Your task to perform on an android device: create a new album in the google photos Image 0: 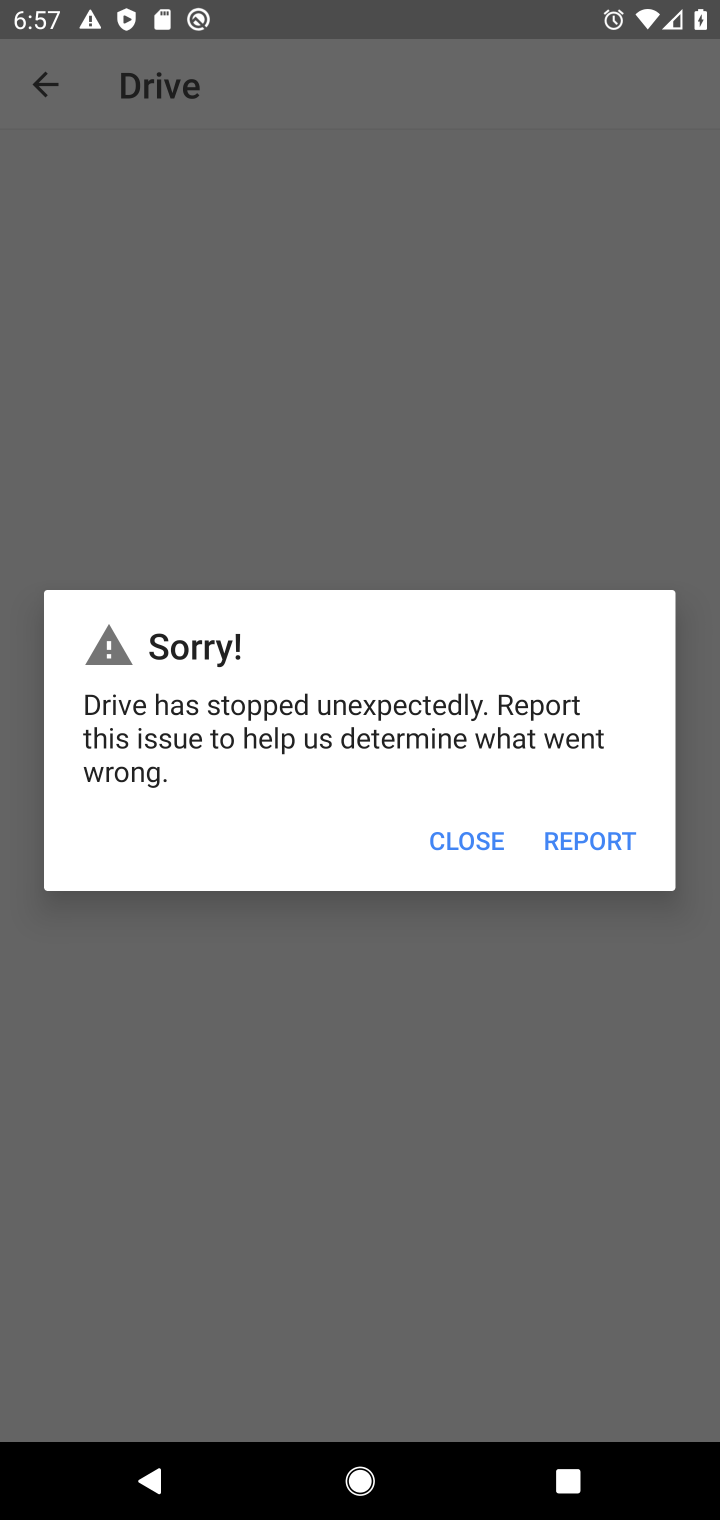
Step 0: press home button
Your task to perform on an android device: create a new album in the google photos Image 1: 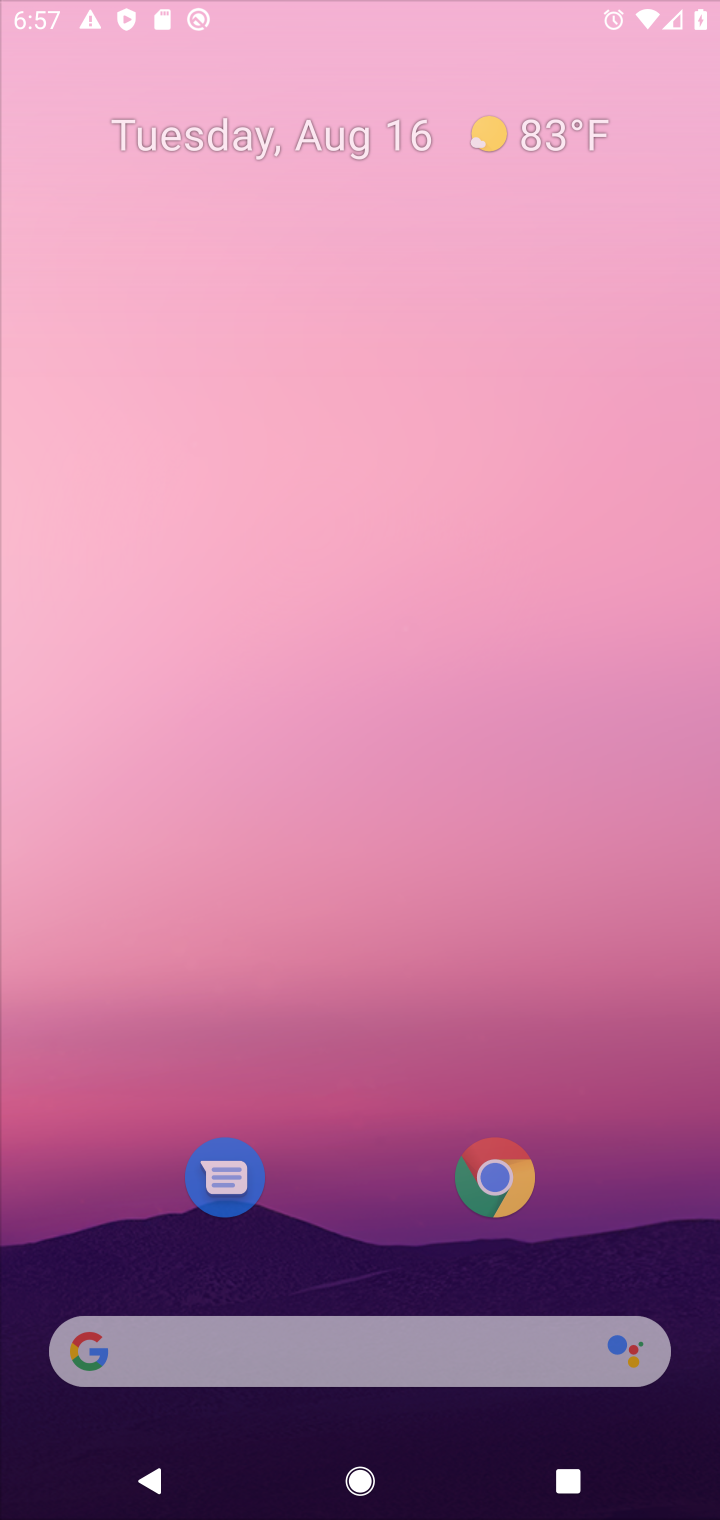
Step 1: drag from (686, 1273) to (259, 57)
Your task to perform on an android device: create a new album in the google photos Image 2: 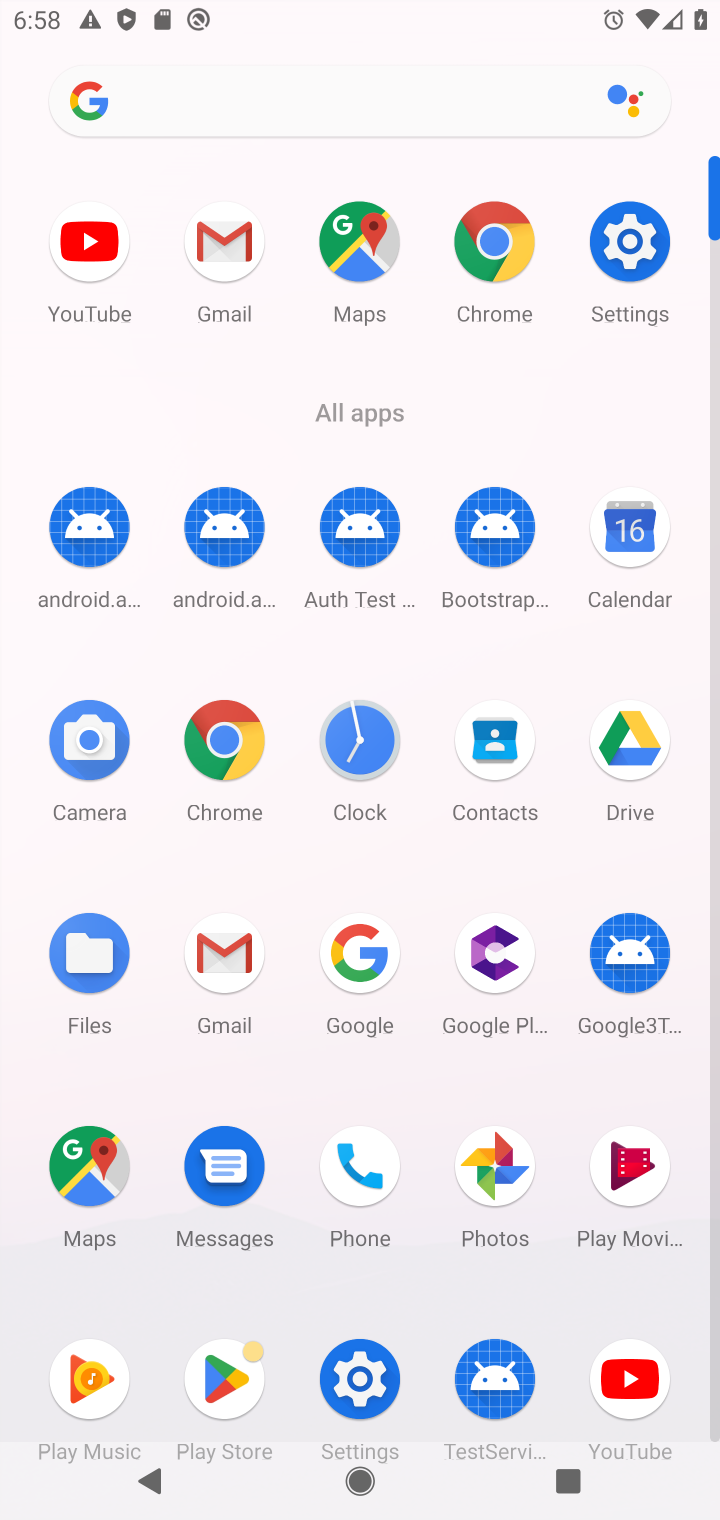
Step 2: click (480, 1203)
Your task to perform on an android device: create a new album in the google photos Image 3: 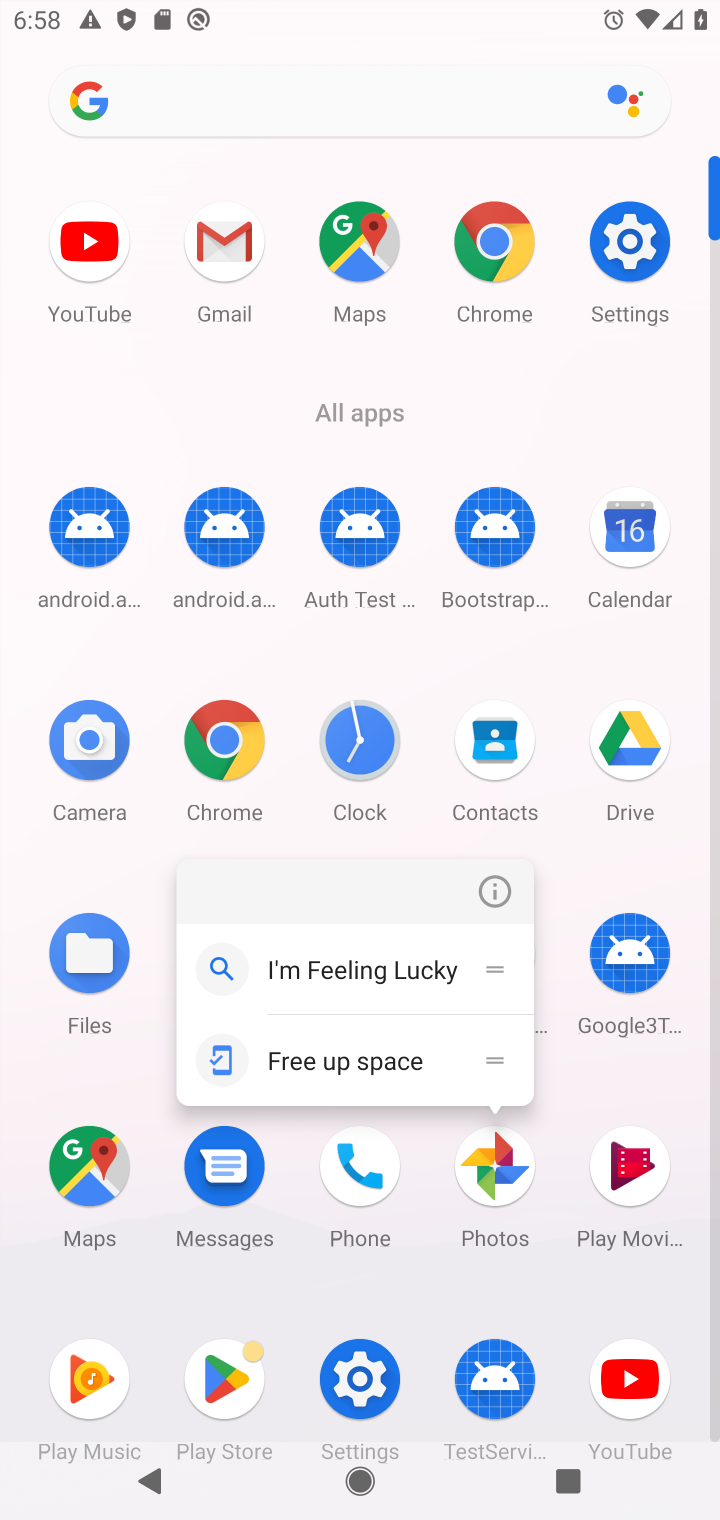
Step 3: click (498, 1194)
Your task to perform on an android device: create a new album in the google photos Image 4: 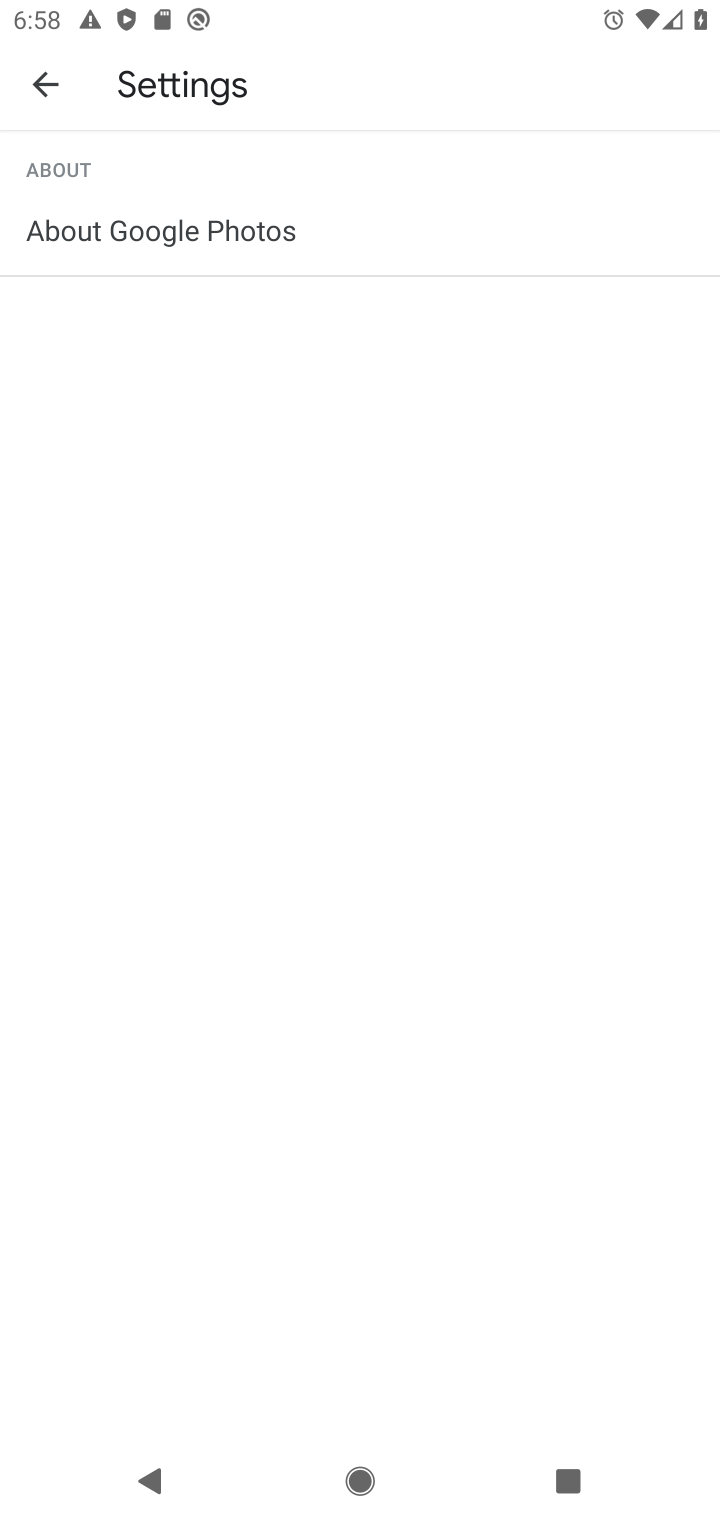
Step 4: task complete